Your task to perform on an android device: read, delete, or share a saved page in the chrome app Image 0: 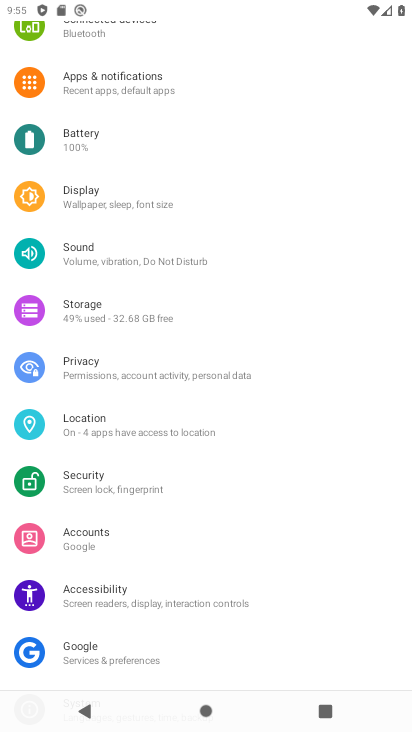
Step 0: press home button
Your task to perform on an android device: read, delete, or share a saved page in the chrome app Image 1: 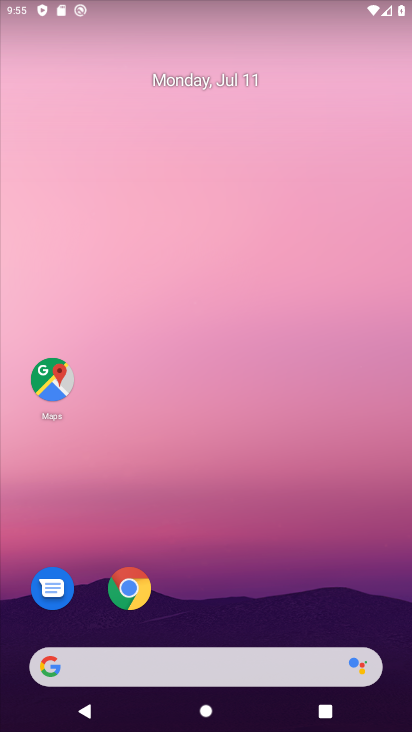
Step 1: click (135, 591)
Your task to perform on an android device: read, delete, or share a saved page in the chrome app Image 2: 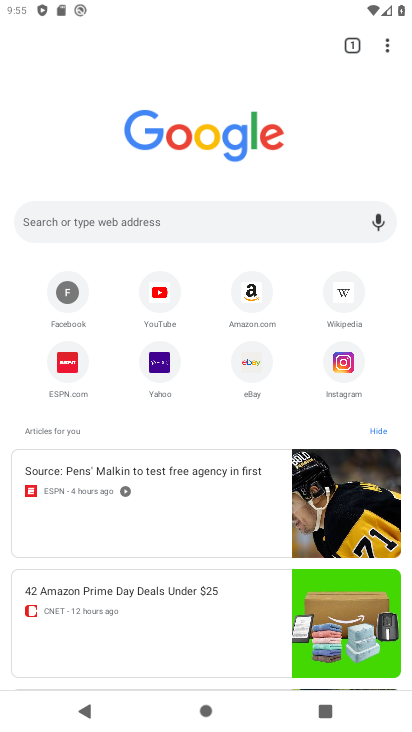
Step 2: click (389, 47)
Your task to perform on an android device: read, delete, or share a saved page in the chrome app Image 3: 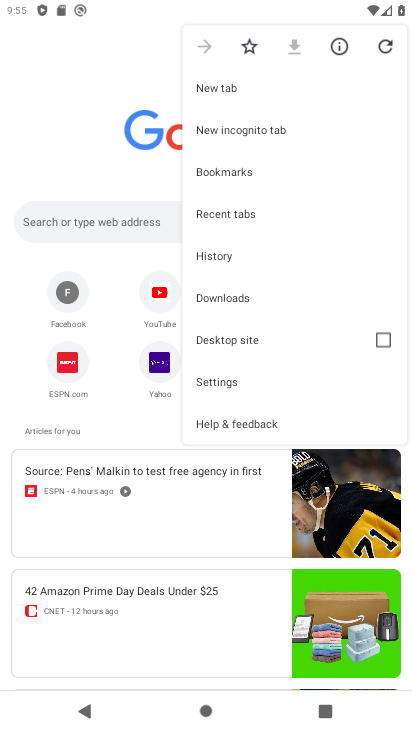
Step 3: click (230, 295)
Your task to perform on an android device: read, delete, or share a saved page in the chrome app Image 4: 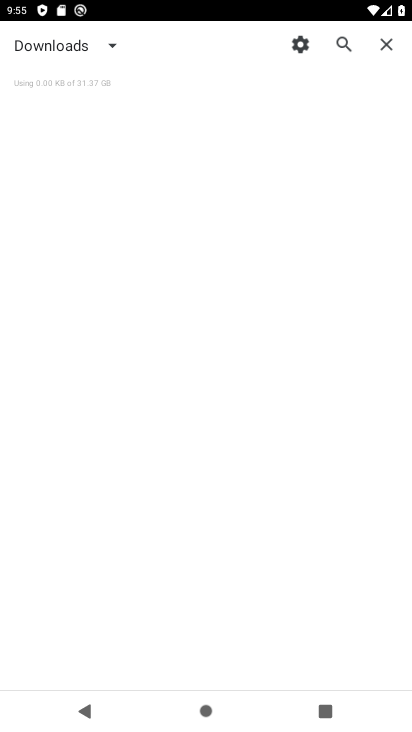
Step 4: task complete